Your task to perform on an android device: Show me the alarms in the clock app Image 0: 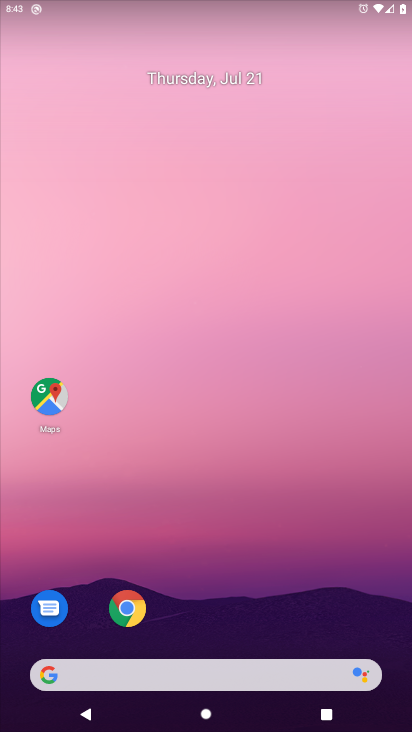
Step 0: drag from (181, 492) to (302, 197)
Your task to perform on an android device: Show me the alarms in the clock app Image 1: 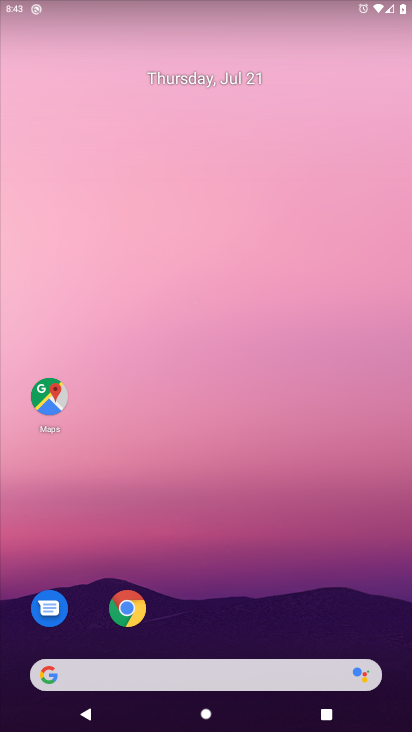
Step 1: drag from (62, 672) to (303, 77)
Your task to perform on an android device: Show me the alarms in the clock app Image 2: 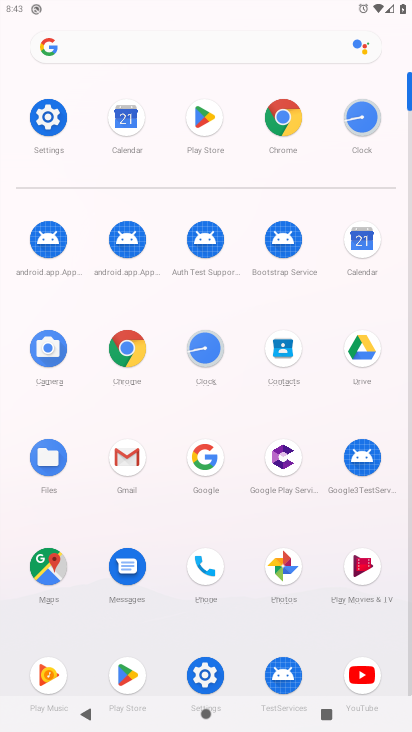
Step 2: click (172, 377)
Your task to perform on an android device: Show me the alarms in the clock app Image 3: 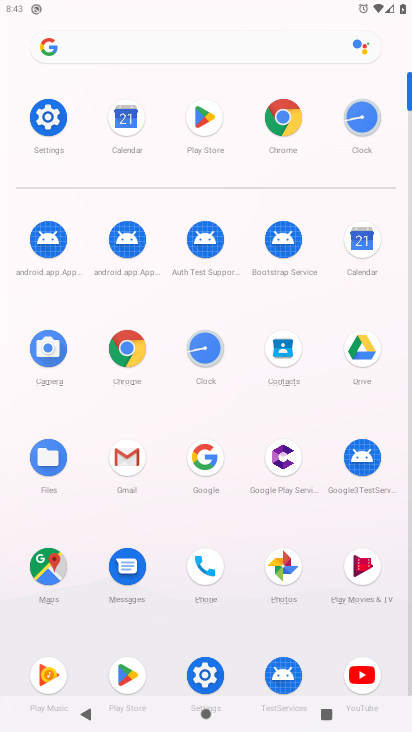
Step 3: click (215, 349)
Your task to perform on an android device: Show me the alarms in the clock app Image 4: 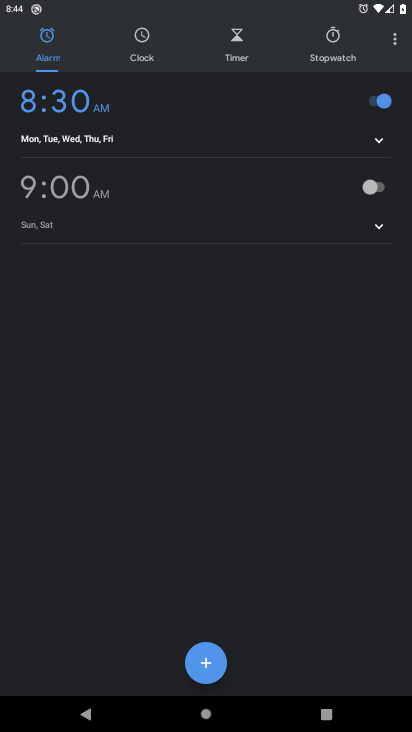
Step 4: task complete